Your task to perform on an android device: choose inbox layout in the gmail app Image 0: 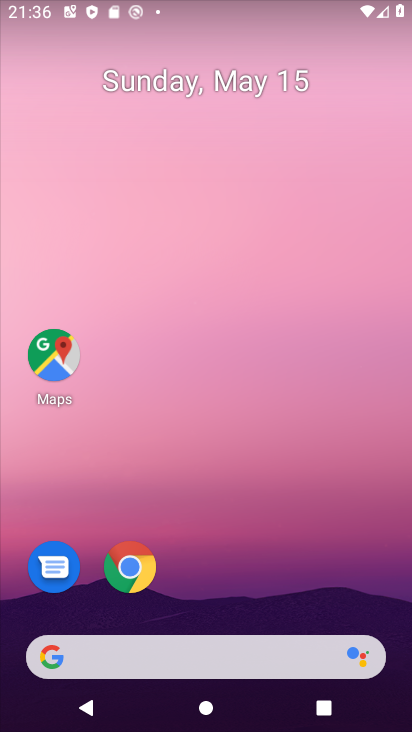
Step 0: drag from (290, 616) to (250, 92)
Your task to perform on an android device: choose inbox layout in the gmail app Image 1: 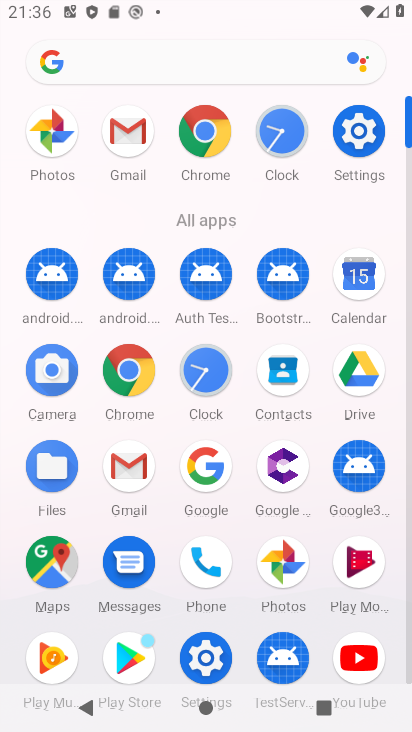
Step 1: click (125, 457)
Your task to perform on an android device: choose inbox layout in the gmail app Image 2: 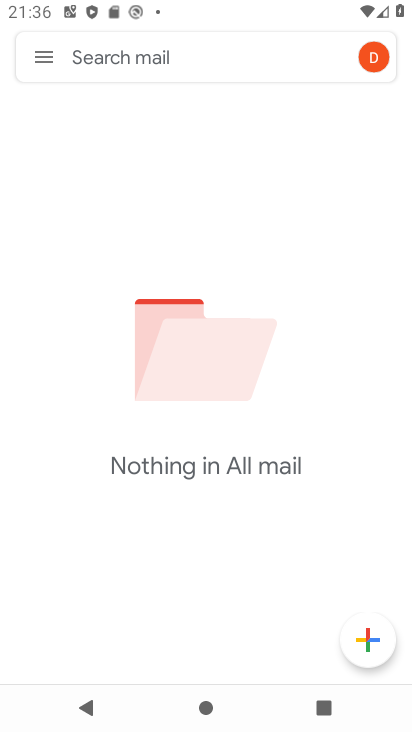
Step 2: click (27, 44)
Your task to perform on an android device: choose inbox layout in the gmail app Image 3: 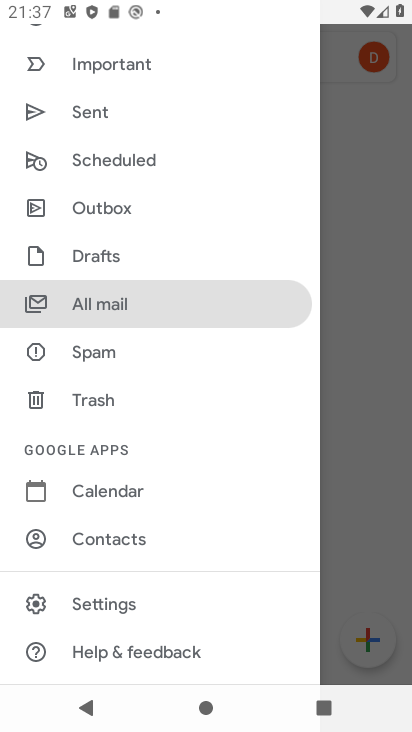
Step 3: click (126, 604)
Your task to perform on an android device: choose inbox layout in the gmail app Image 4: 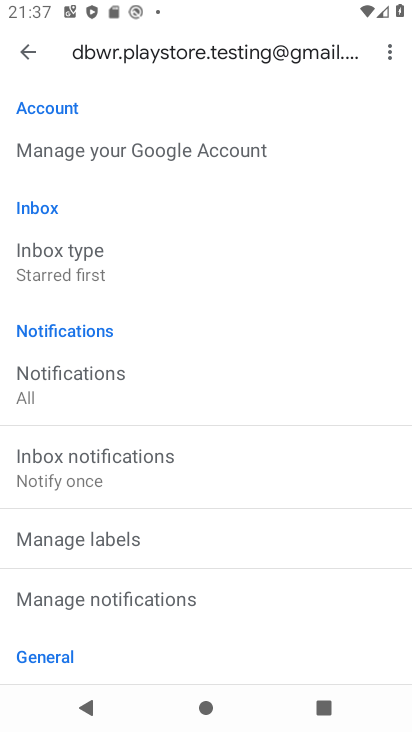
Step 4: click (95, 265)
Your task to perform on an android device: choose inbox layout in the gmail app Image 5: 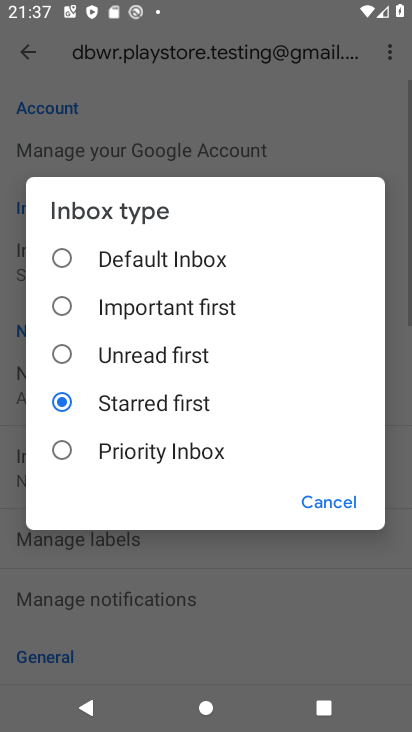
Step 5: click (143, 317)
Your task to perform on an android device: choose inbox layout in the gmail app Image 6: 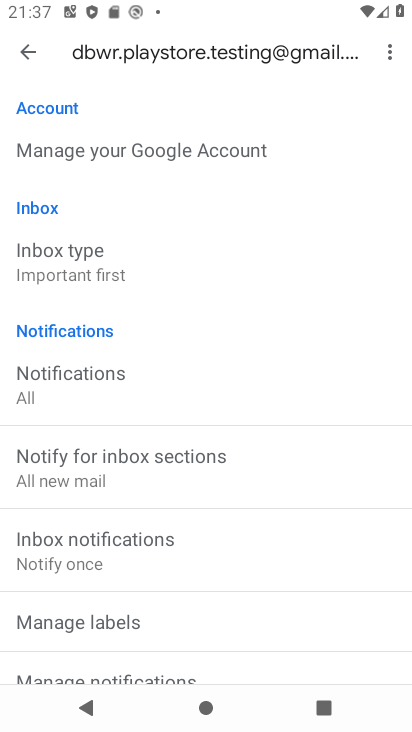
Step 6: task complete